Your task to perform on an android device: Go to ESPN.com Image 0: 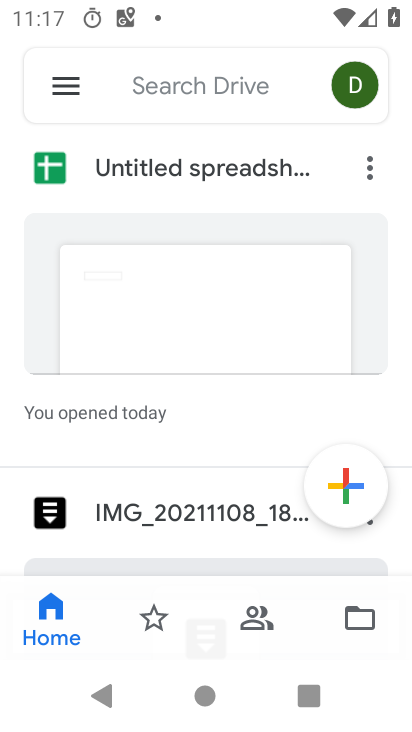
Step 0: press home button
Your task to perform on an android device: Go to ESPN.com Image 1: 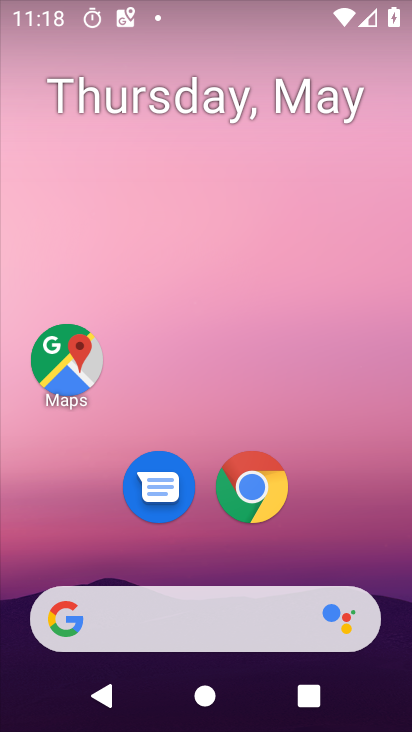
Step 1: click (269, 483)
Your task to perform on an android device: Go to ESPN.com Image 2: 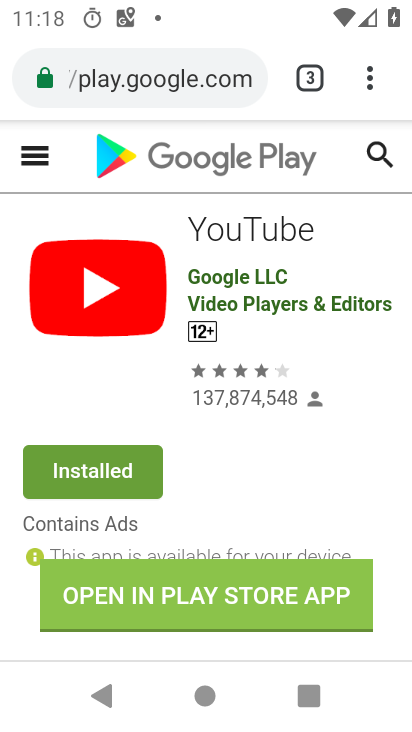
Step 2: click (310, 80)
Your task to perform on an android device: Go to ESPN.com Image 3: 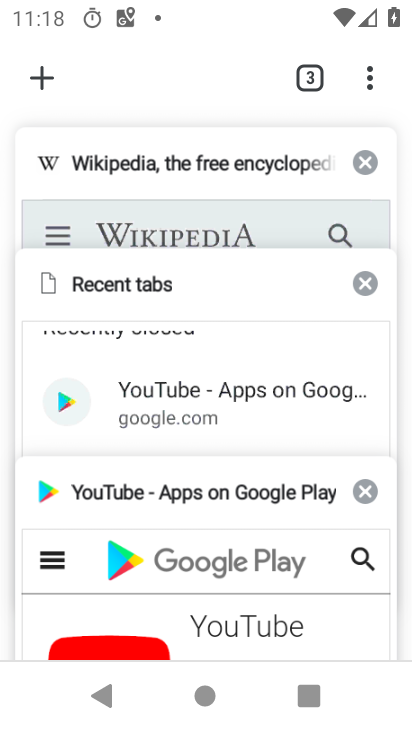
Step 3: click (35, 71)
Your task to perform on an android device: Go to ESPN.com Image 4: 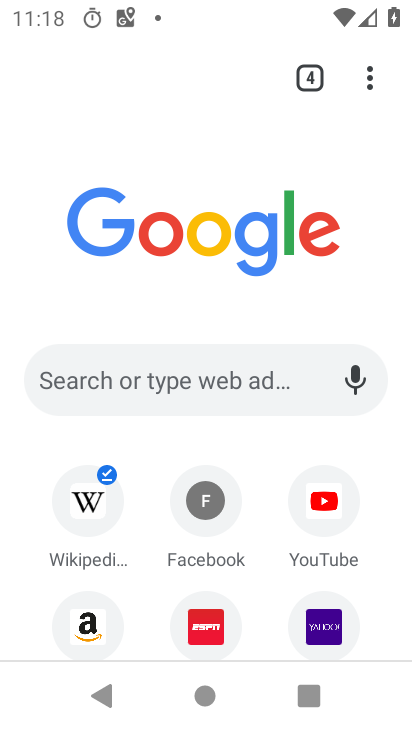
Step 4: click (201, 627)
Your task to perform on an android device: Go to ESPN.com Image 5: 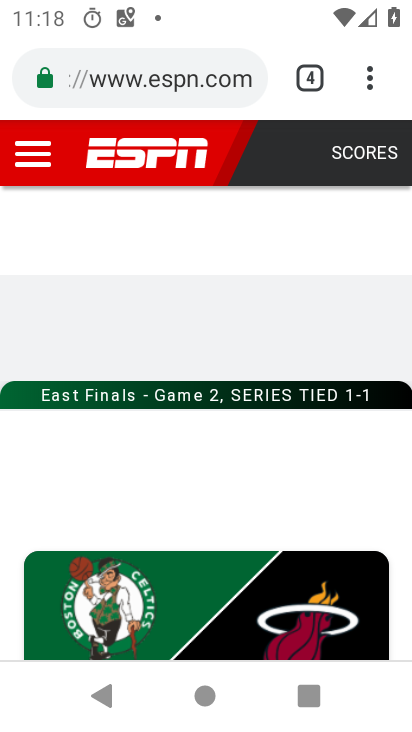
Step 5: task complete